Your task to perform on an android device: open device folders in google photos Image 0: 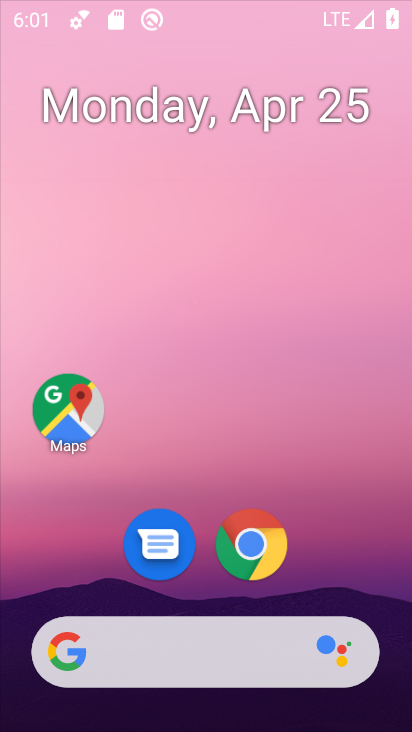
Step 0: click (329, 122)
Your task to perform on an android device: open device folders in google photos Image 1: 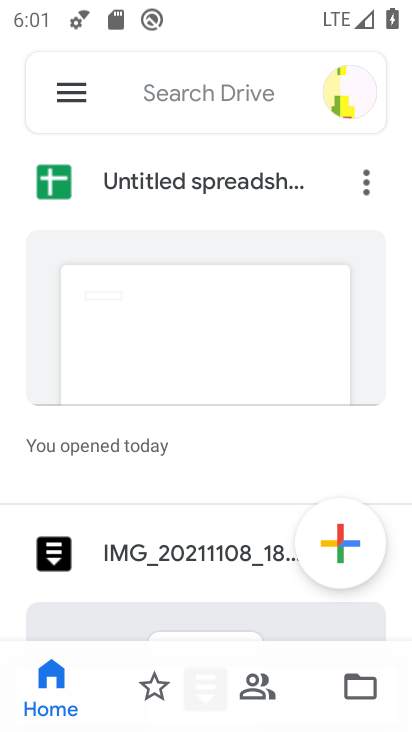
Step 1: press home button
Your task to perform on an android device: open device folders in google photos Image 2: 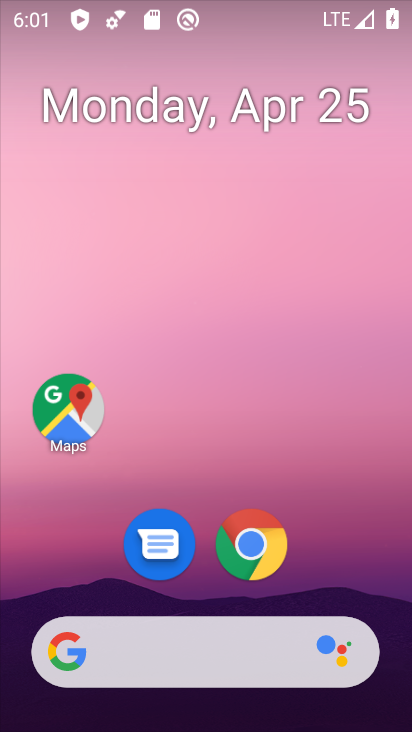
Step 2: drag from (354, 533) to (316, 48)
Your task to perform on an android device: open device folders in google photos Image 3: 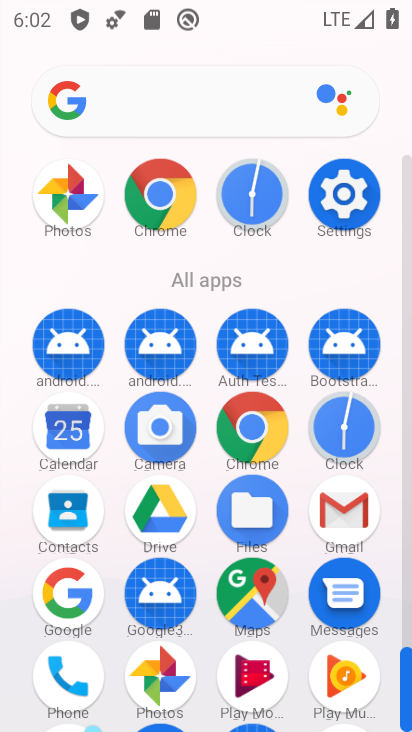
Step 3: click (158, 664)
Your task to perform on an android device: open device folders in google photos Image 4: 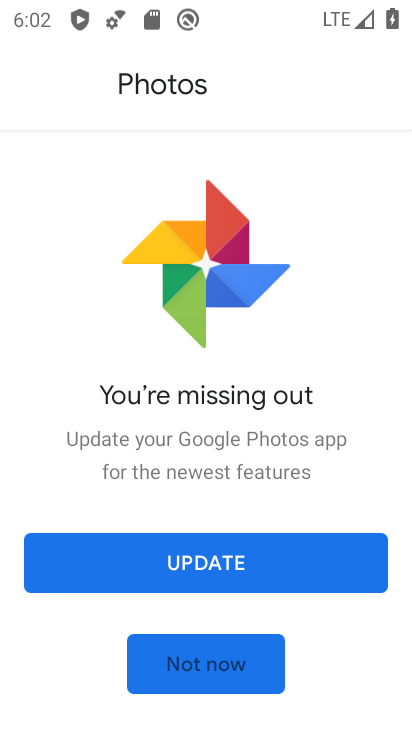
Step 4: click (226, 560)
Your task to perform on an android device: open device folders in google photos Image 5: 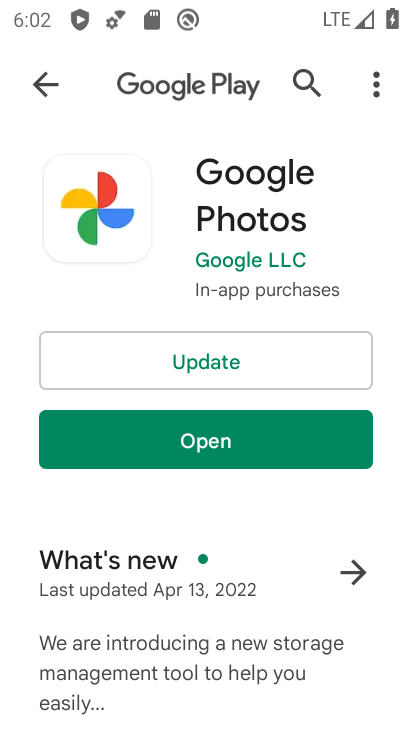
Step 5: click (168, 370)
Your task to perform on an android device: open device folders in google photos Image 6: 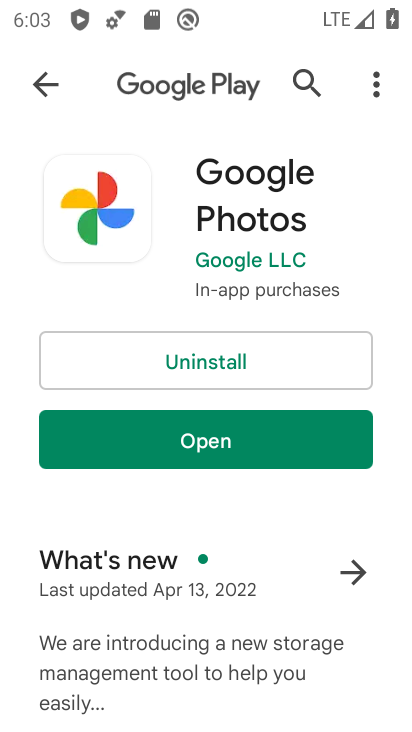
Step 6: click (213, 416)
Your task to perform on an android device: open device folders in google photos Image 7: 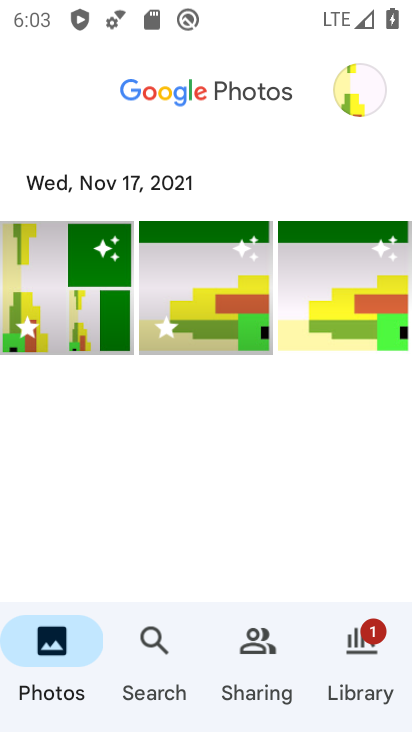
Step 7: click (351, 653)
Your task to perform on an android device: open device folders in google photos Image 8: 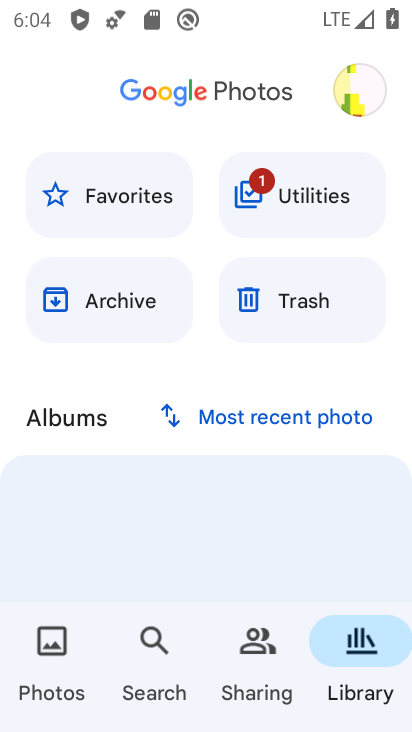
Step 8: task complete